Your task to perform on an android device: all mails in gmail Image 0: 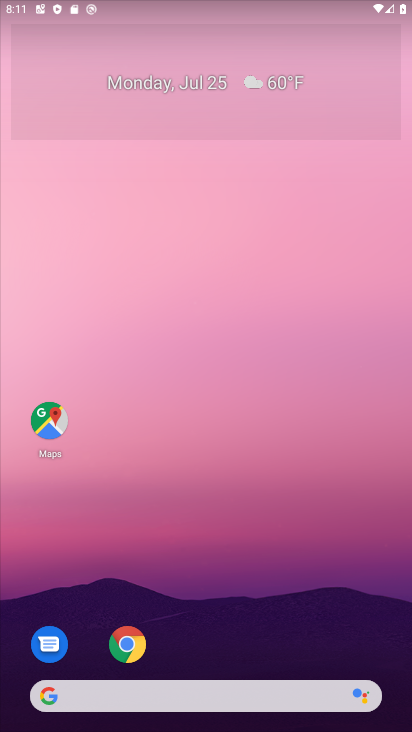
Step 0: drag from (349, 566) to (270, 251)
Your task to perform on an android device: all mails in gmail Image 1: 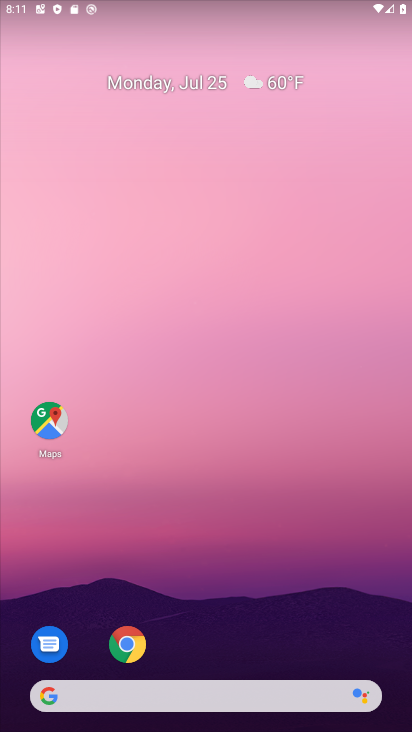
Step 1: drag from (287, 396) to (236, 16)
Your task to perform on an android device: all mails in gmail Image 2: 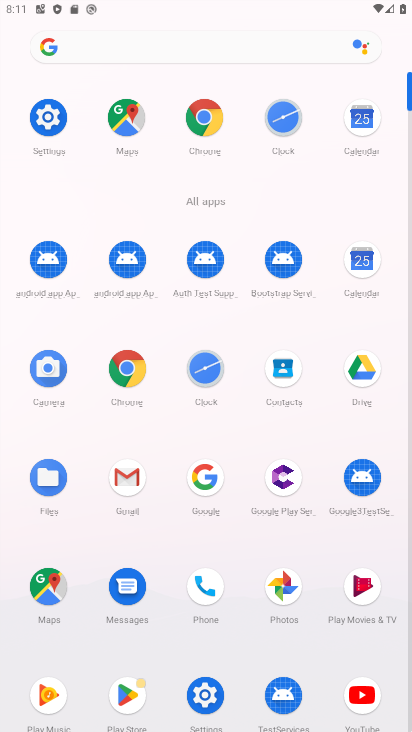
Step 2: click (126, 479)
Your task to perform on an android device: all mails in gmail Image 3: 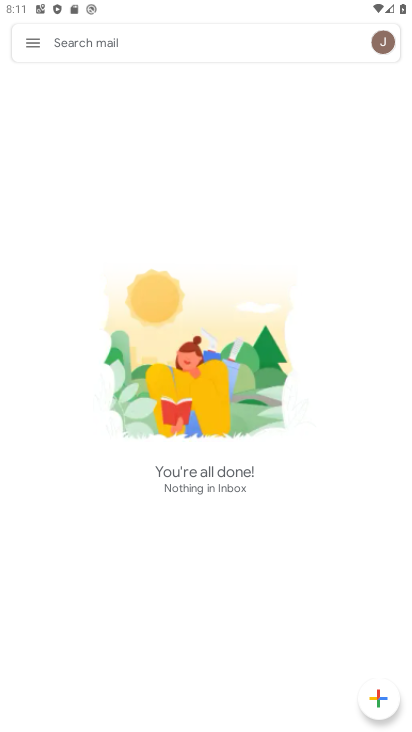
Step 3: click (32, 41)
Your task to perform on an android device: all mails in gmail Image 4: 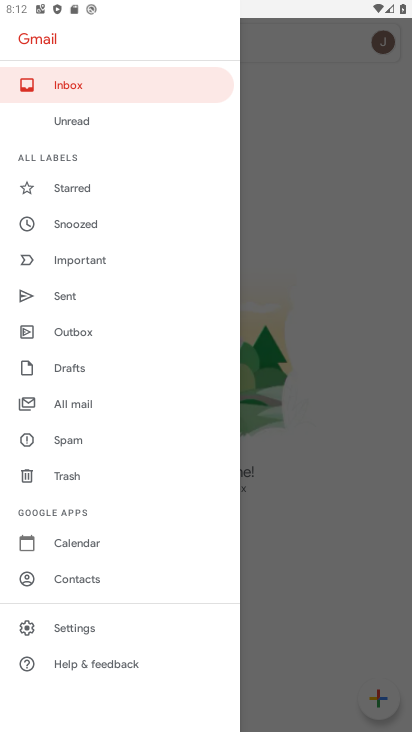
Step 4: click (76, 400)
Your task to perform on an android device: all mails in gmail Image 5: 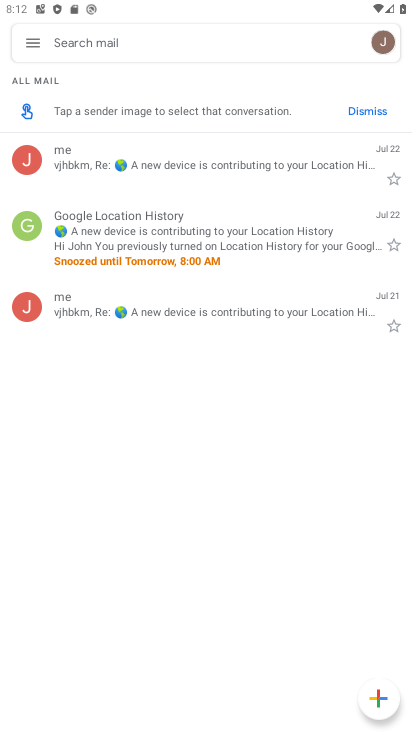
Step 5: task complete